Your task to perform on an android device: Go to Reddit.com Image 0: 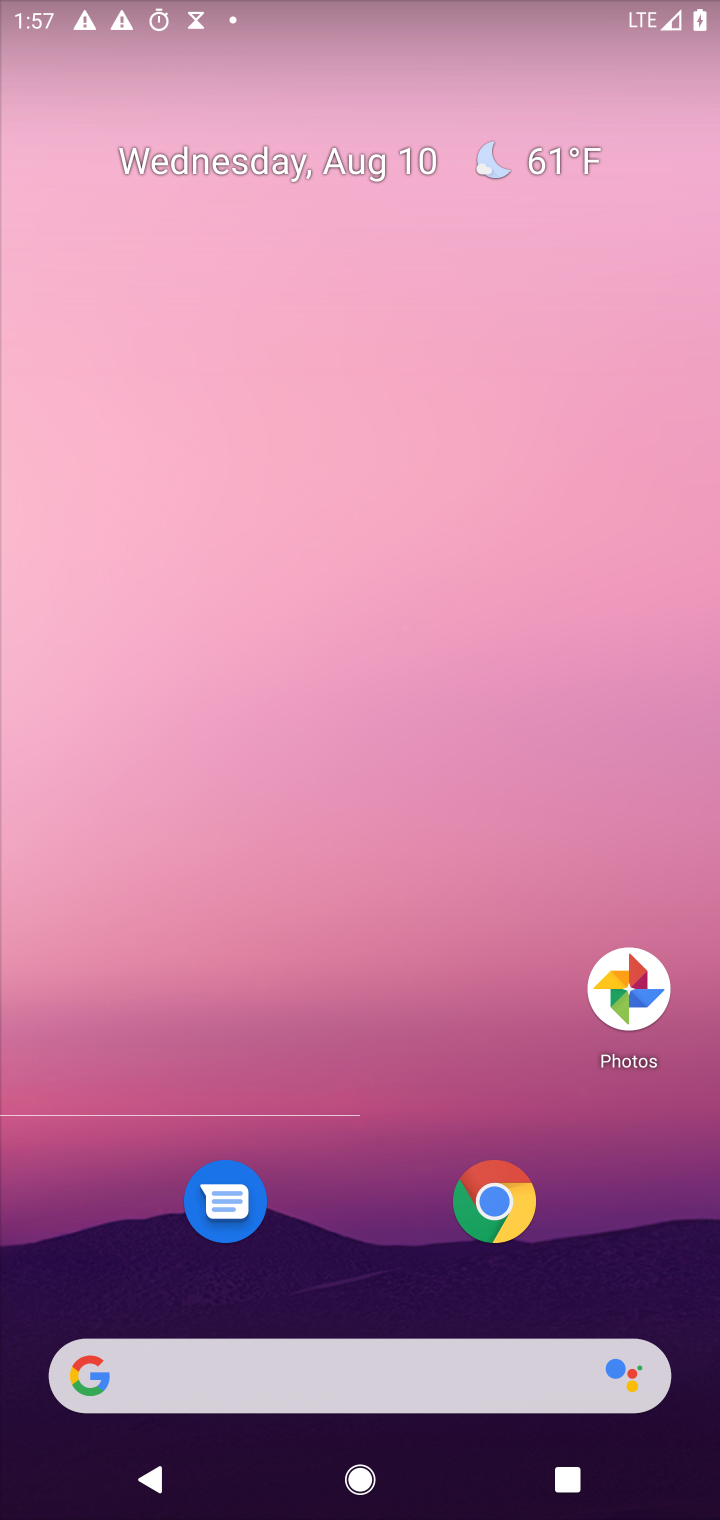
Step 0: click (87, 1390)
Your task to perform on an android device: Go to Reddit.com Image 1: 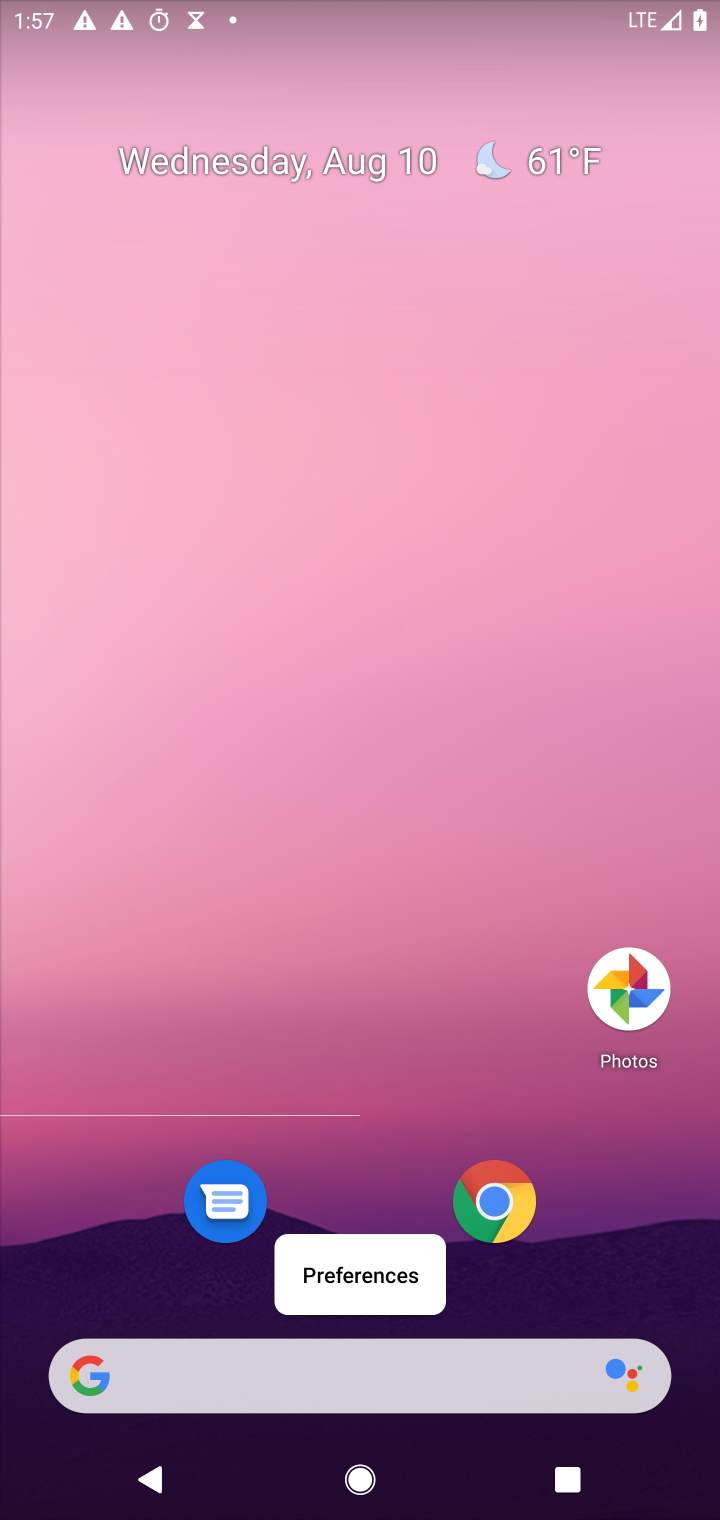
Step 1: click (87, 1390)
Your task to perform on an android device: Go to Reddit.com Image 2: 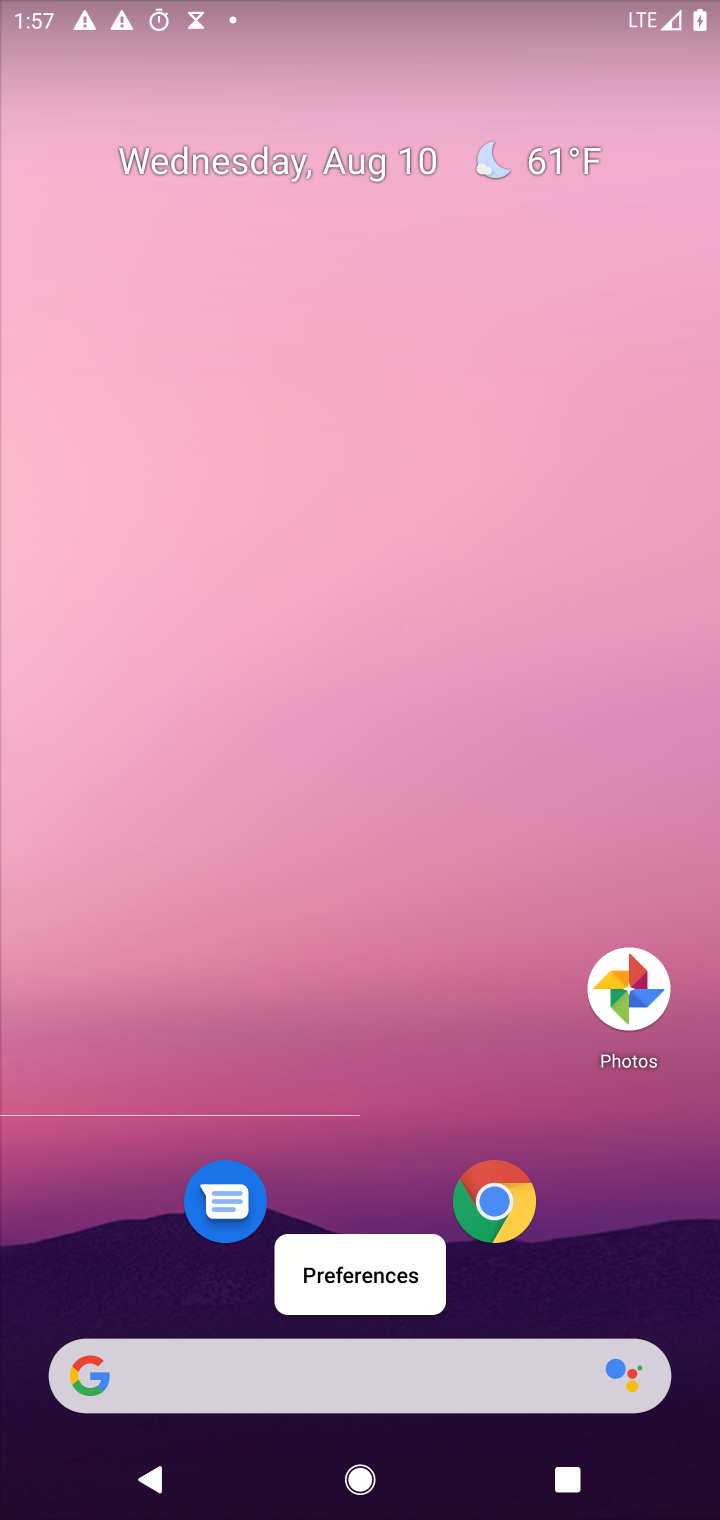
Step 2: drag from (229, 1286) to (308, 104)
Your task to perform on an android device: Go to Reddit.com Image 3: 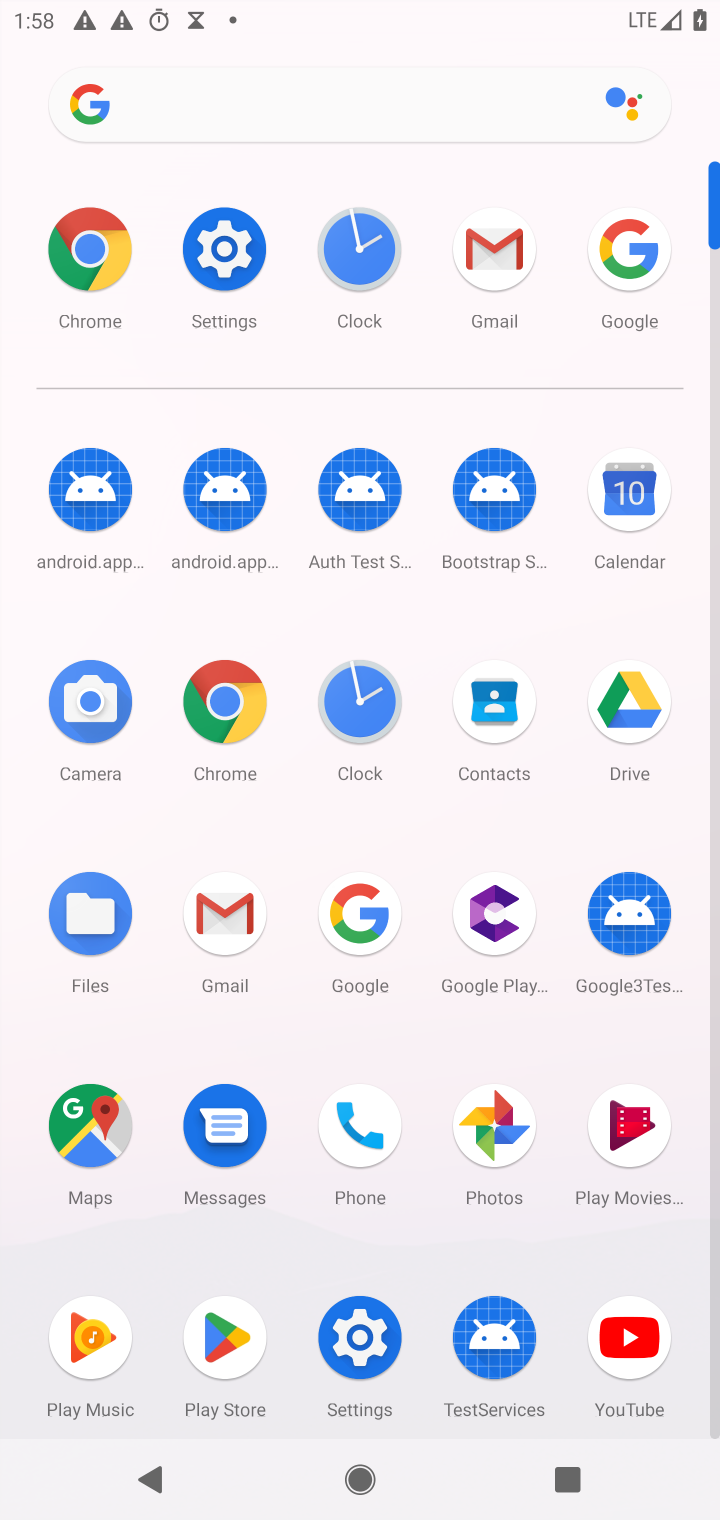
Step 3: click (361, 920)
Your task to perform on an android device: Go to Reddit.com Image 4: 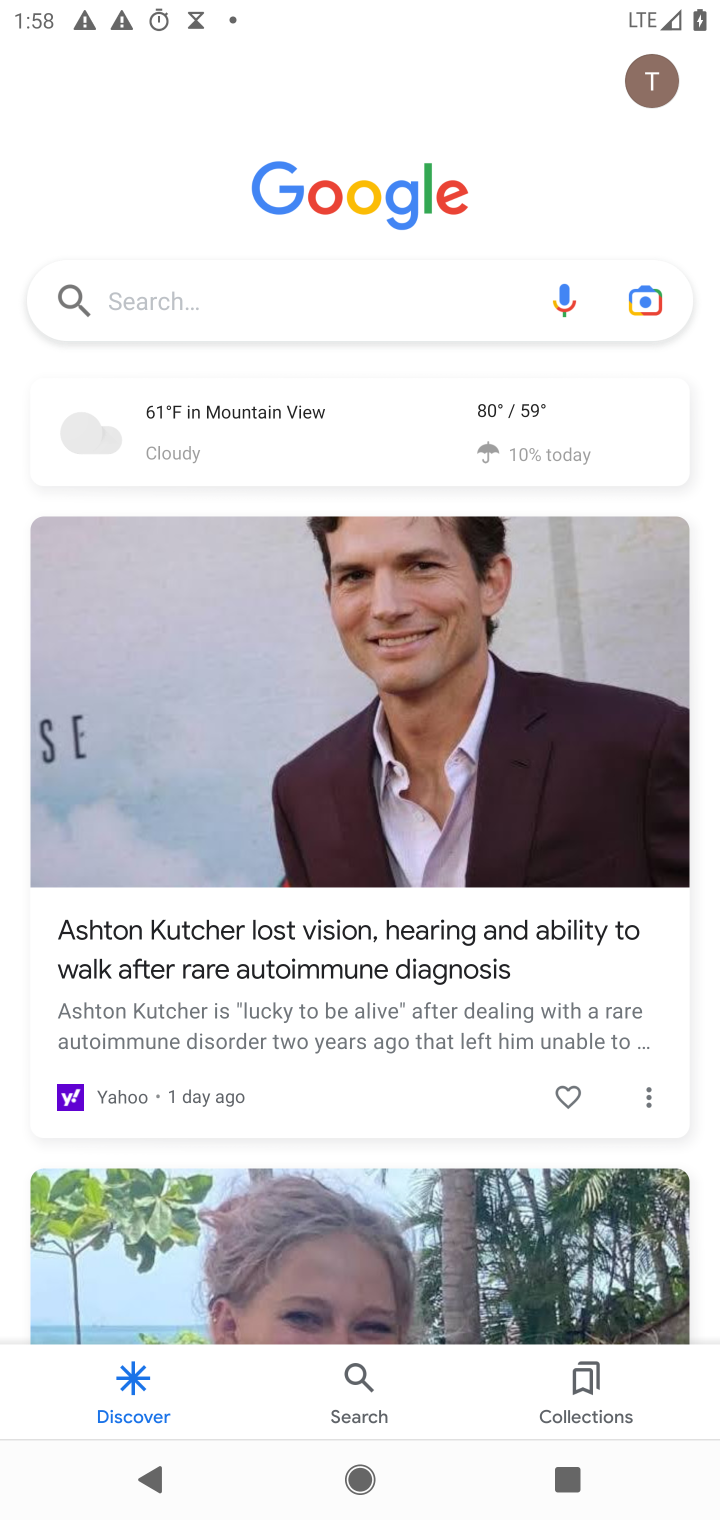
Step 4: click (218, 307)
Your task to perform on an android device: Go to Reddit.com Image 5: 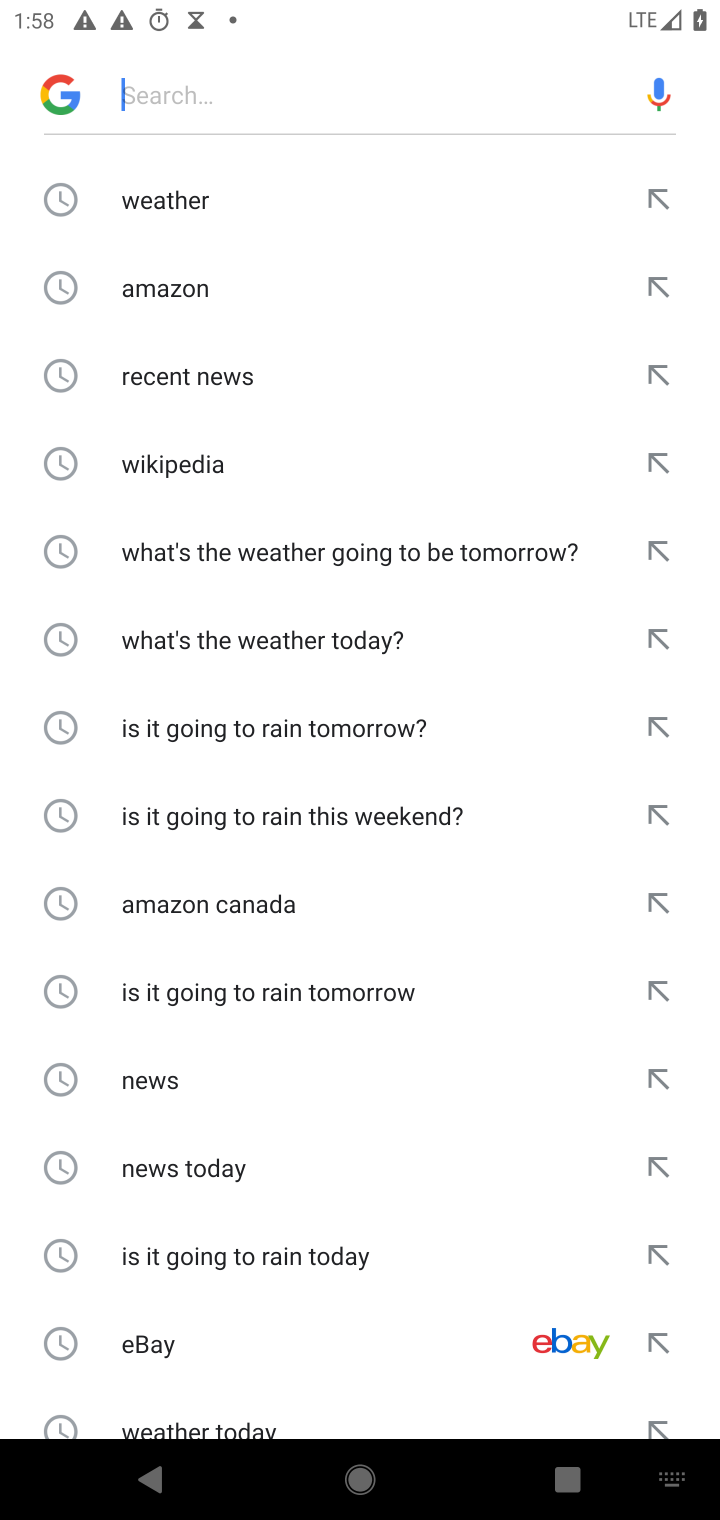
Step 5: type "Reddit.com"
Your task to perform on an android device: Go to Reddit.com Image 6: 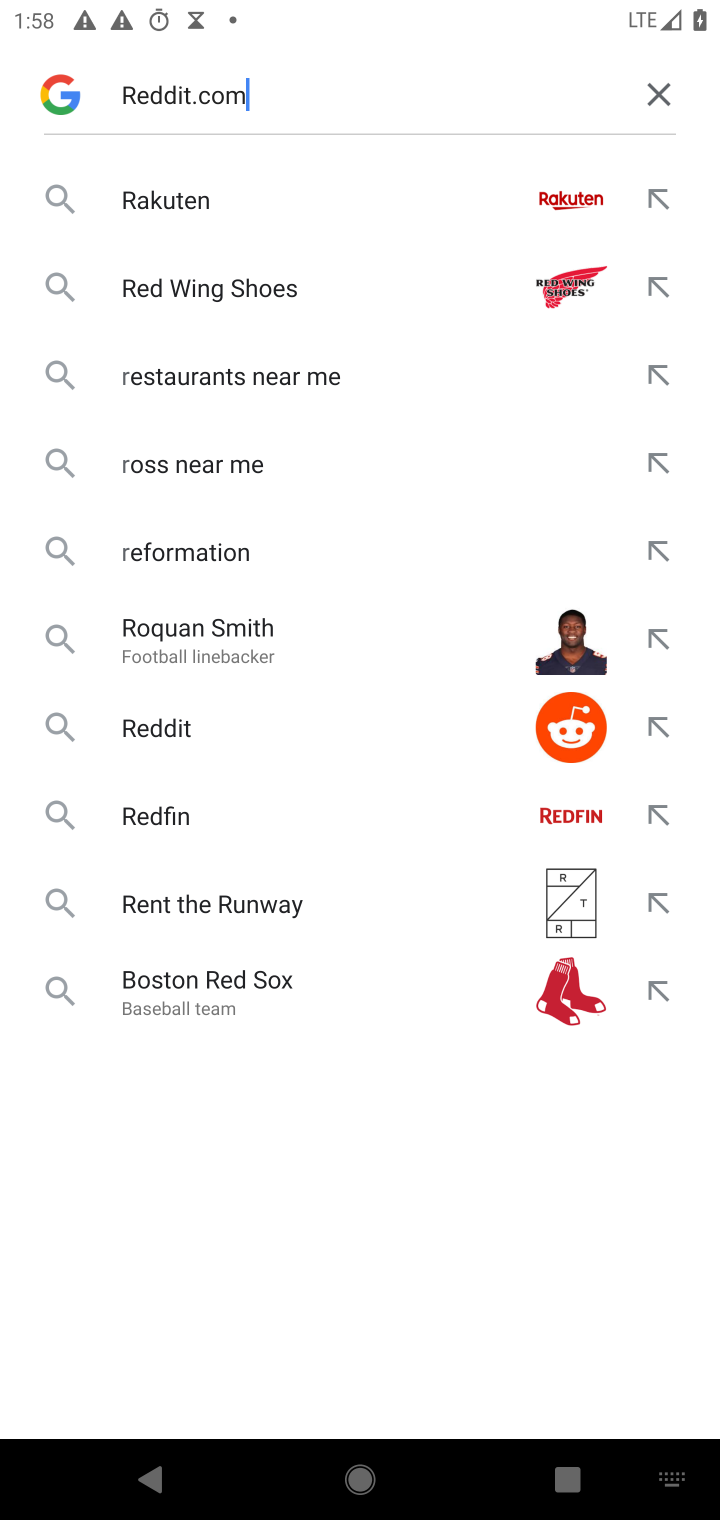
Step 6: press enter
Your task to perform on an android device: Go to Reddit.com Image 7: 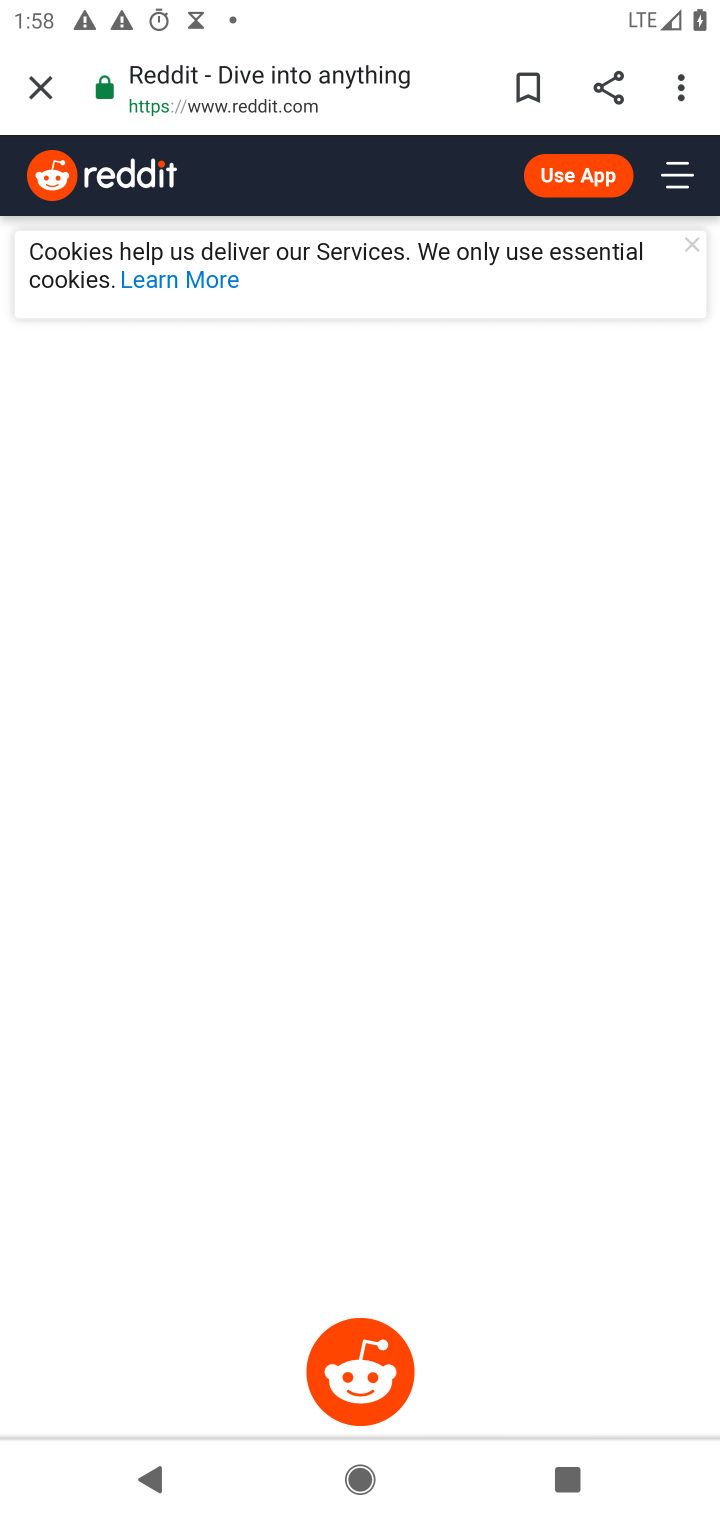
Step 7: task complete